Your task to perform on an android device: Go to calendar. Show me events next week Image 0: 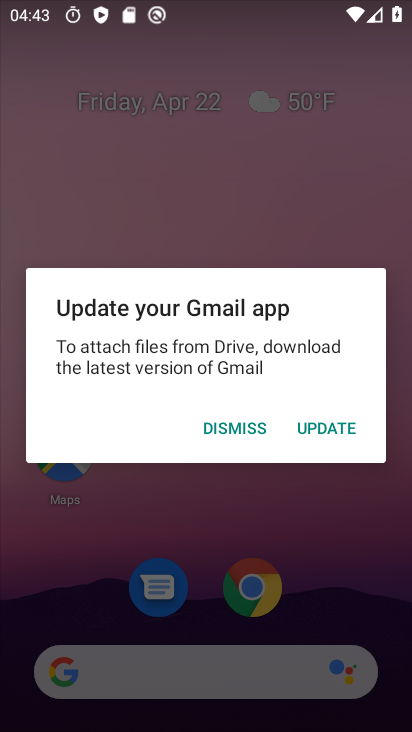
Step 0: press home button
Your task to perform on an android device: Go to calendar. Show me events next week Image 1: 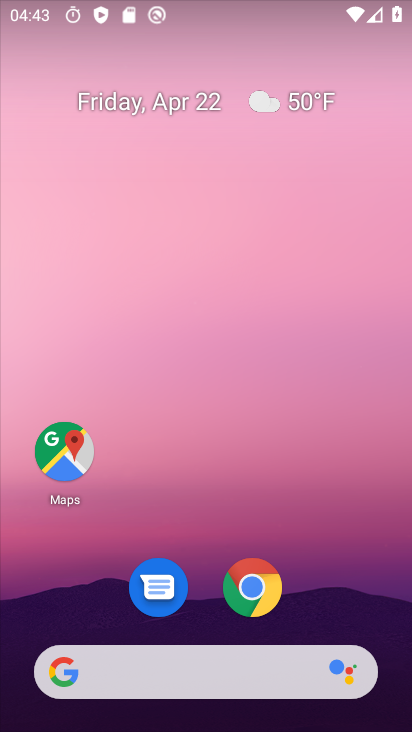
Step 1: drag from (366, 615) to (318, 6)
Your task to perform on an android device: Go to calendar. Show me events next week Image 2: 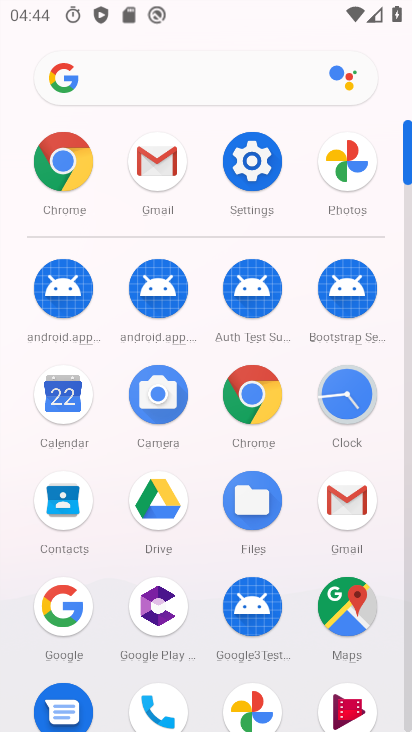
Step 2: click (63, 414)
Your task to perform on an android device: Go to calendar. Show me events next week Image 3: 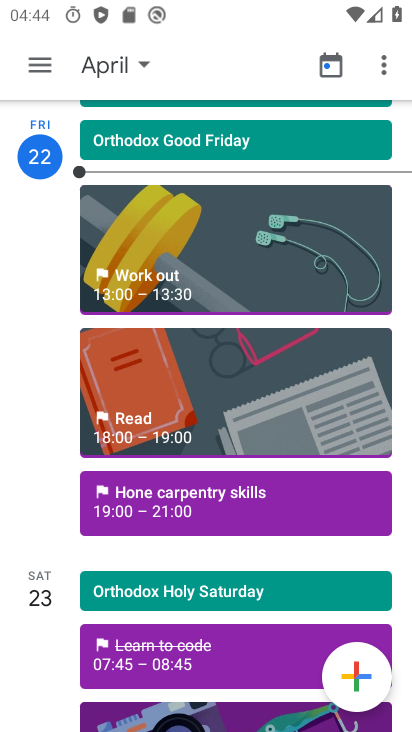
Step 3: click (34, 69)
Your task to perform on an android device: Go to calendar. Show me events next week Image 4: 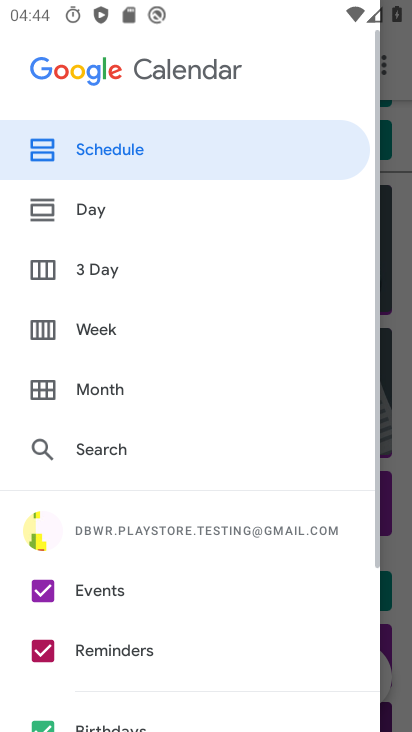
Step 4: click (48, 641)
Your task to perform on an android device: Go to calendar. Show me events next week Image 5: 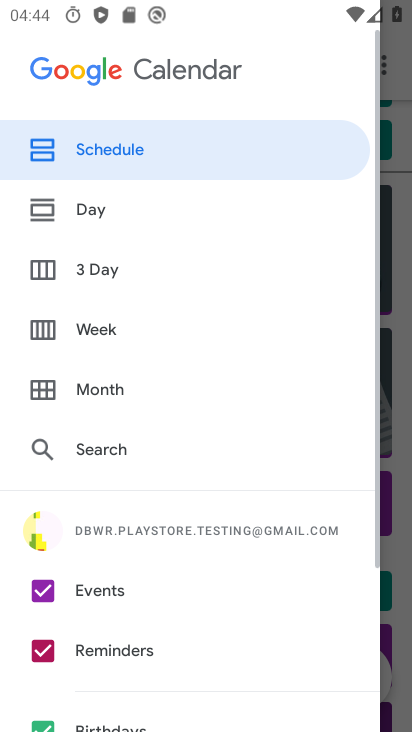
Step 5: drag from (202, 591) to (197, 256)
Your task to perform on an android device: Go to calendar. Show me events next week Image 6: 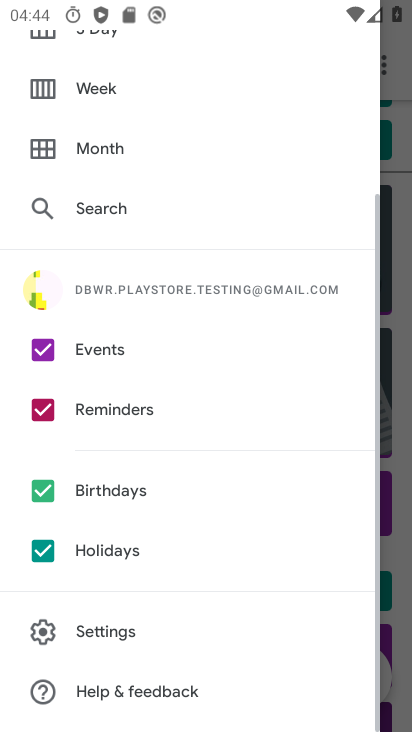
Step 6: click (39, 551)
Your task to perform on an android device: Go to calendar. Show me events next week Image 7: 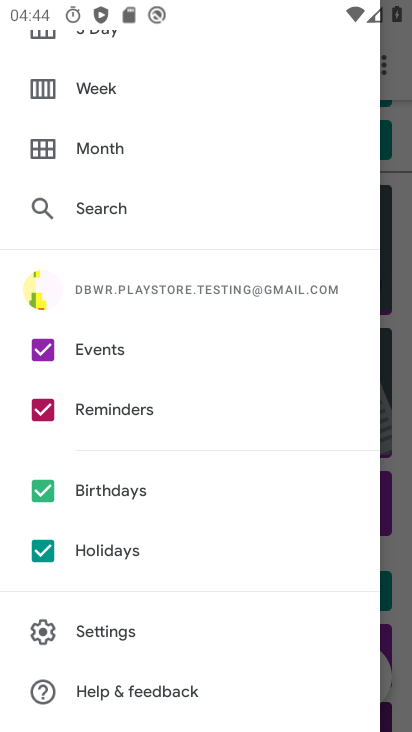
Step 7: click (40, 490)
Your task to perform on an android device: Go to calendar. Show me events next week Image 8: 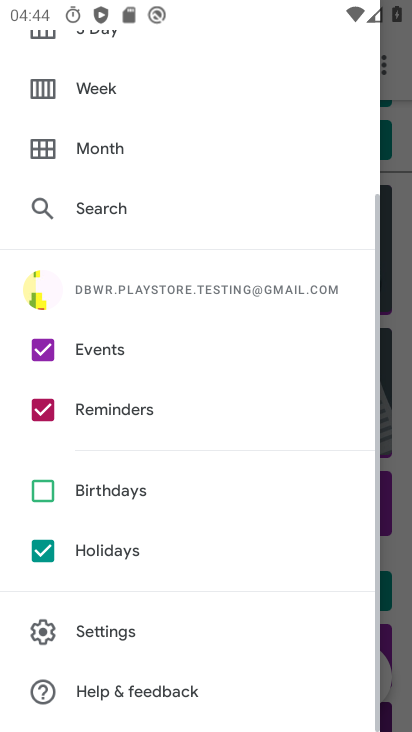
Step 8: click (39, 402)
Your task to perform on an android device: Go to calendar. Show me events next week Image 9: 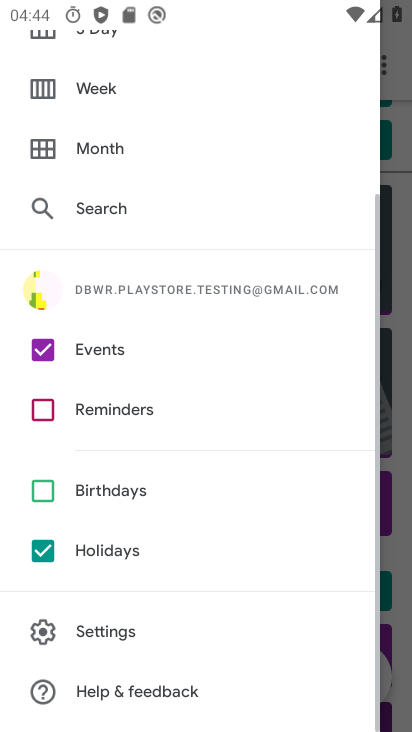
Step 9: click (42, 552)
Your task to perform on an android device: Go to calendar. Show me events next week Image 10: 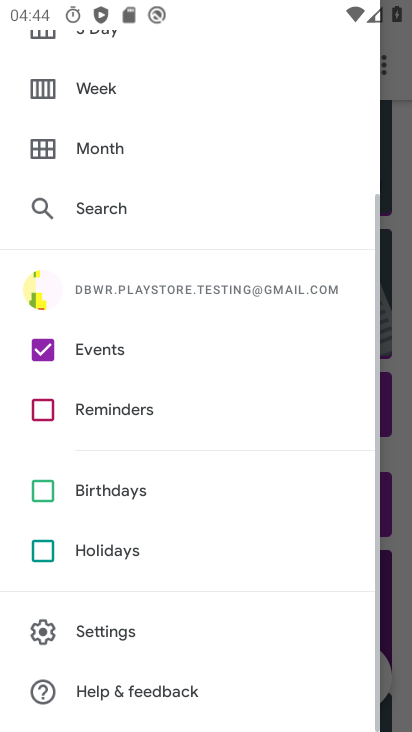
Step 10: drag from (233, 402) to (251, 663)
Your task to perform on an android device: Go to calendar. Show me events next week Image 11: 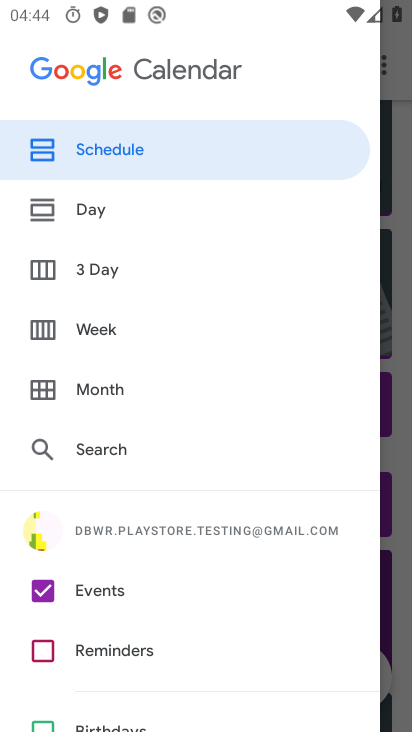
Step 11: click (83, 339)
Your task to perform on an android device: Go to calendar. Show me events next week Image 12: 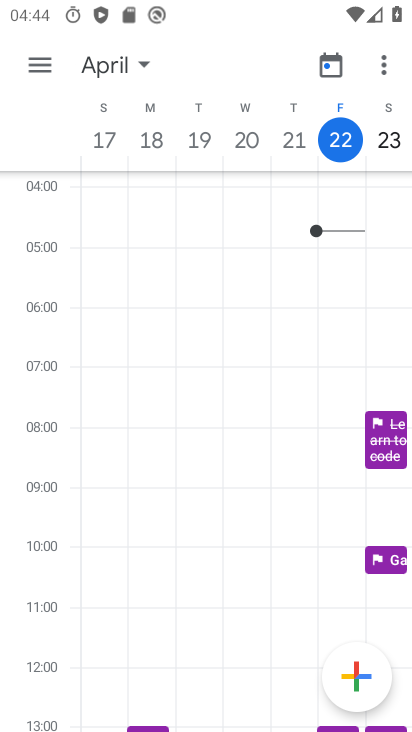
Step 12: task complete